Your task to perform on an android device: snooze an email in the gmail app Image 0: 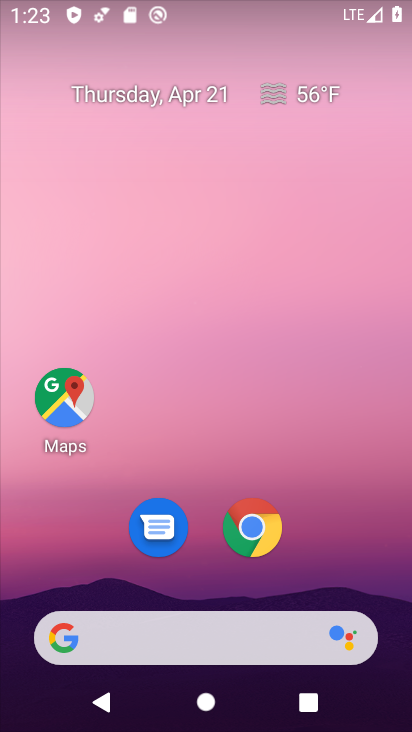
Step 0: drag from (196, 530) to (246, 251)
Your task to perform on an android device: snooze an email in the gmail app Image 1: 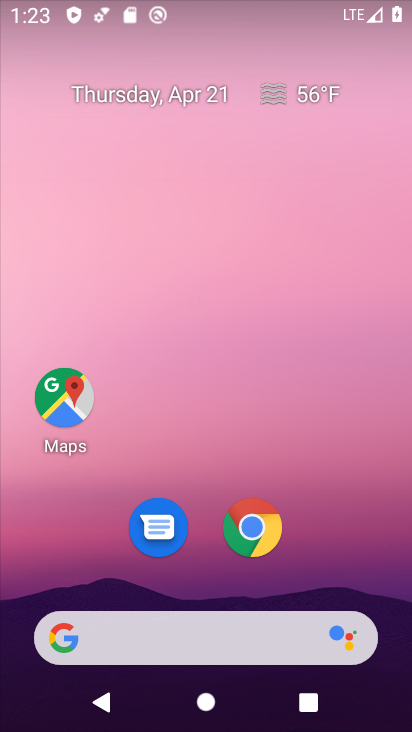
Step 1: drag from (202, 591) to (268, 114)
Your task to perform on an android device: snooze an email in the gmail app Image 2: 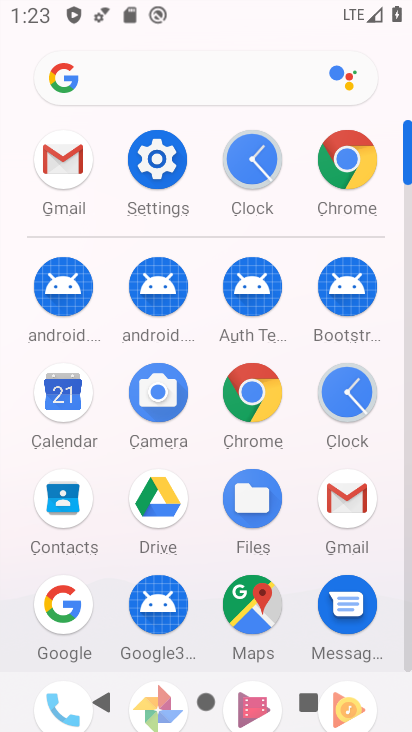
Step 2: click (81, 157)
Your task to perform on an android device: snooze an email in the gmail app Image 3: 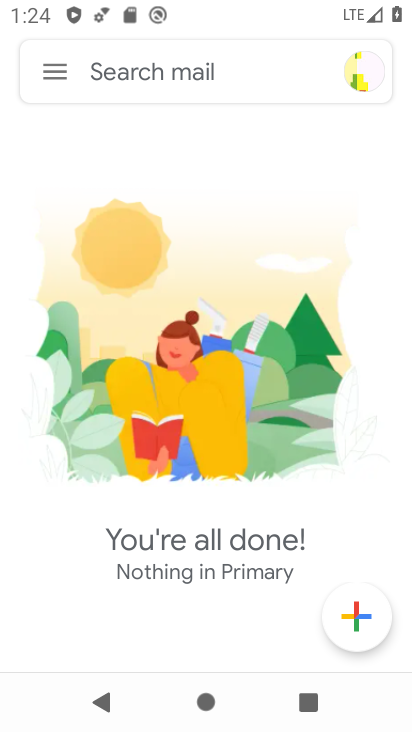
Step 3: task complete